Your task to perform on an android device: install app "Speedtest by Ookla" Image 0: 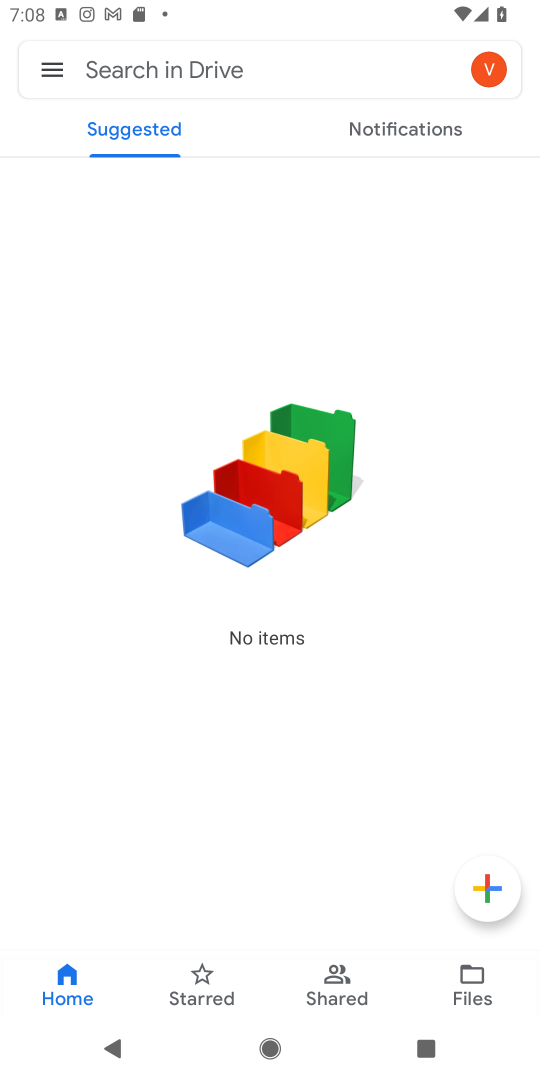
Step 0: press home button
Your task to perform on an android device: install app "Speedtest by Ookla" Image 1: 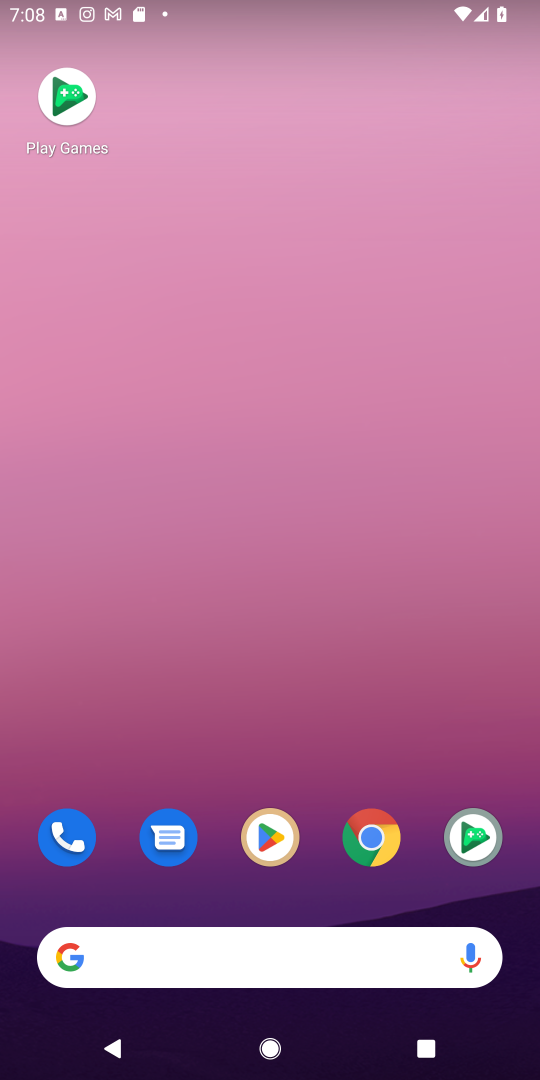
Step 1: click (267, 841)
Your task to perform on an android device: install app "Speedtest by Ookla" Image 2: 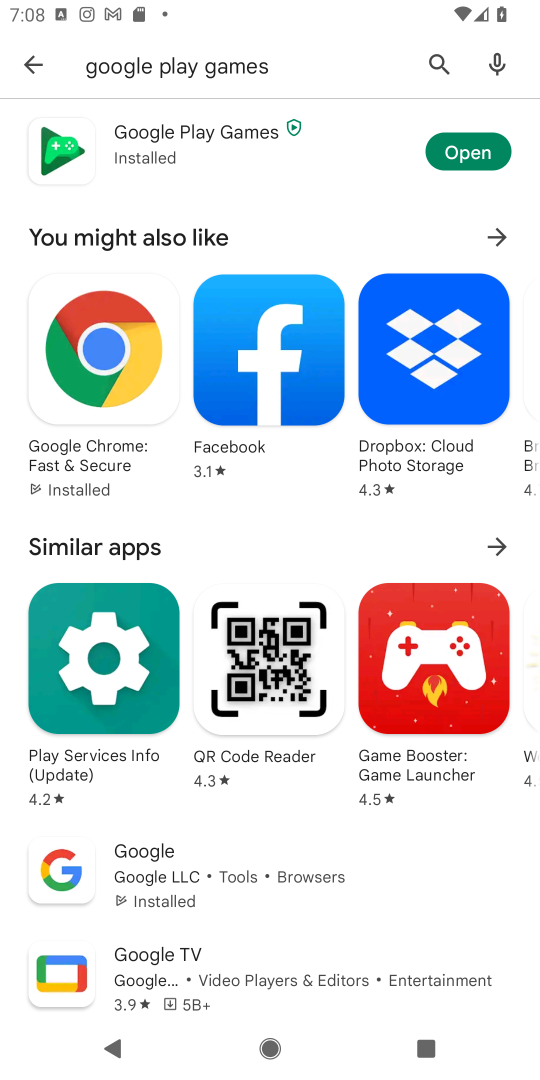
Step 2: click (441, 55)
Your task to perform on an android device: install app "Speedtest by Ookla" Image 3: 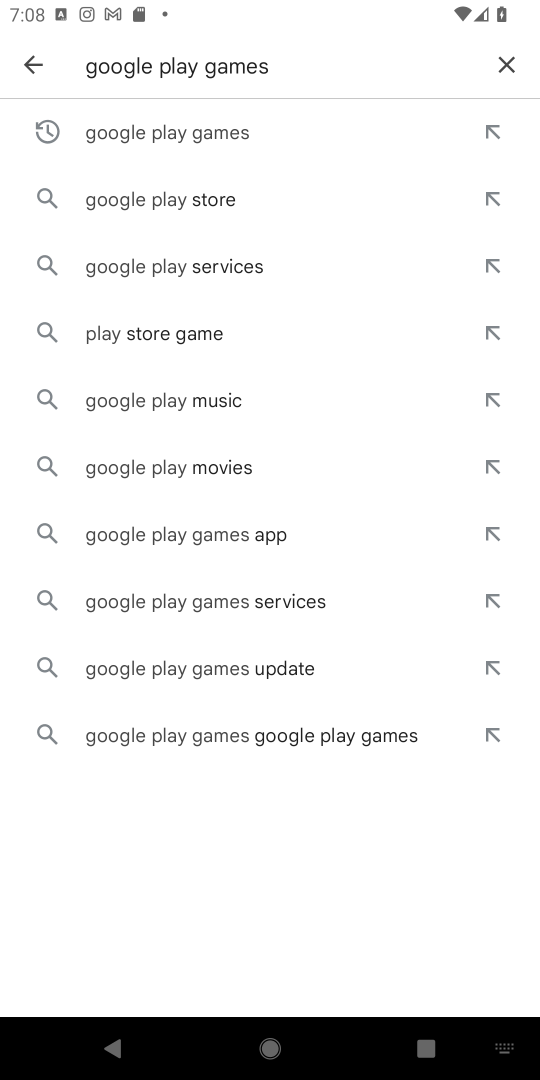
Step 3: click (510, 61)
Your task to perform on an android device: install app "Speedtest by Ookla" Image 4: 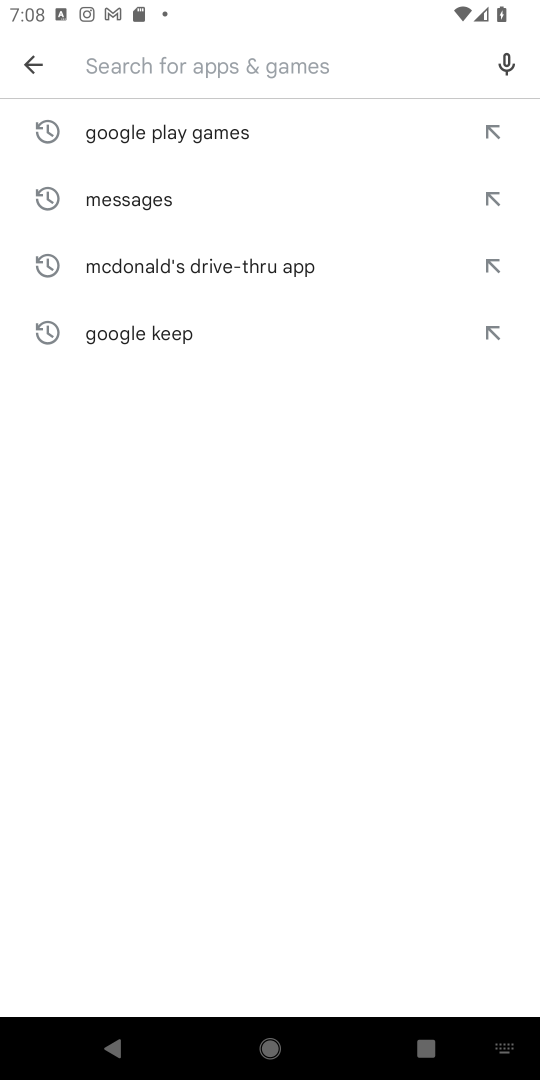
Step 4: type "Speedtest by Ookla"
Your task to perform on an android device: install app "Speedtest by Ookla" Image 5: 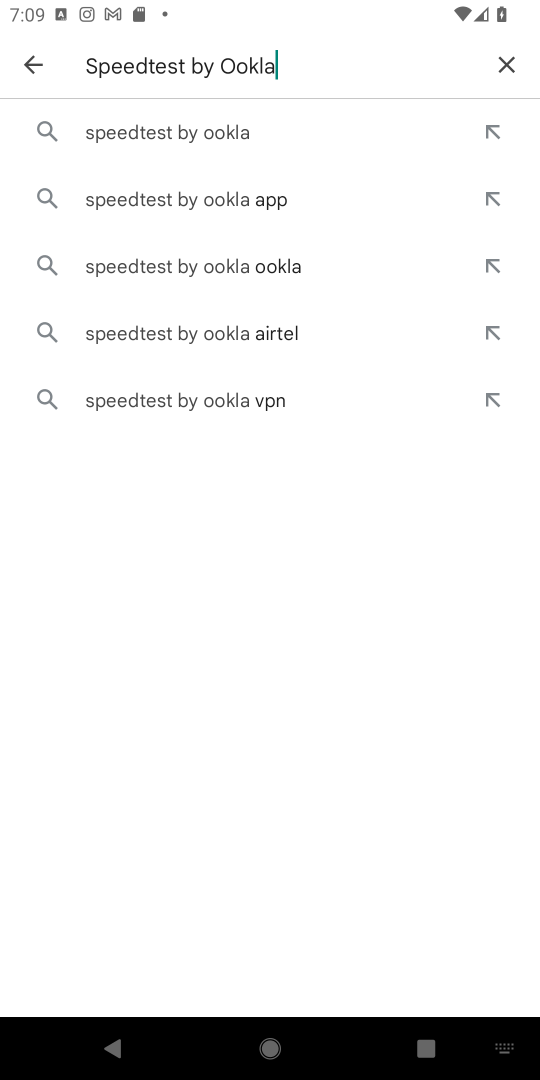
Step 5: click (202, 125)
Your task to perform on an android device: install app "Speedtest by Ookla" Image 6: 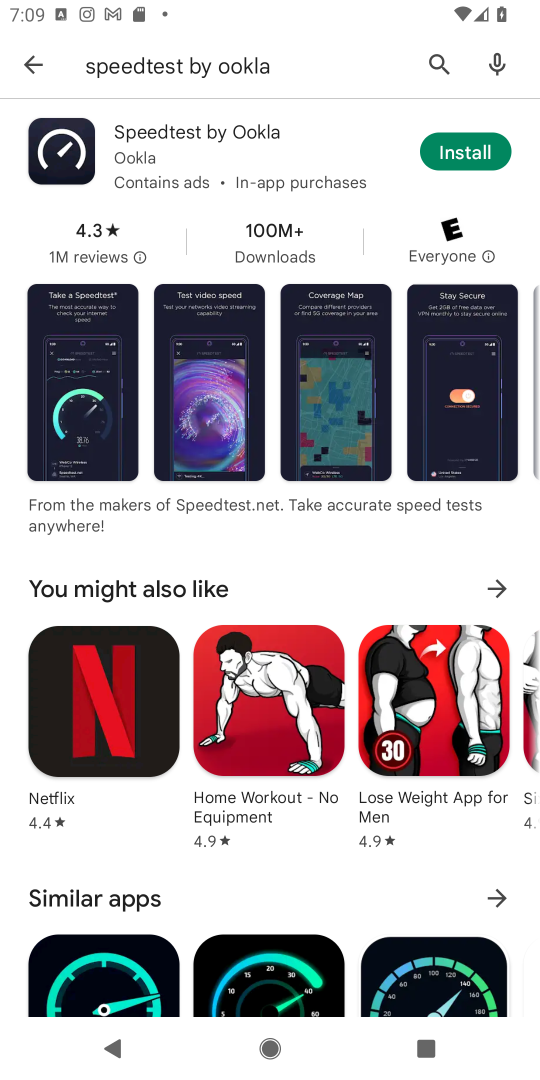
Step 6: click (477, 163)
Your task to perform on an android device: install app "Speedtest by Ookla" Image 7: 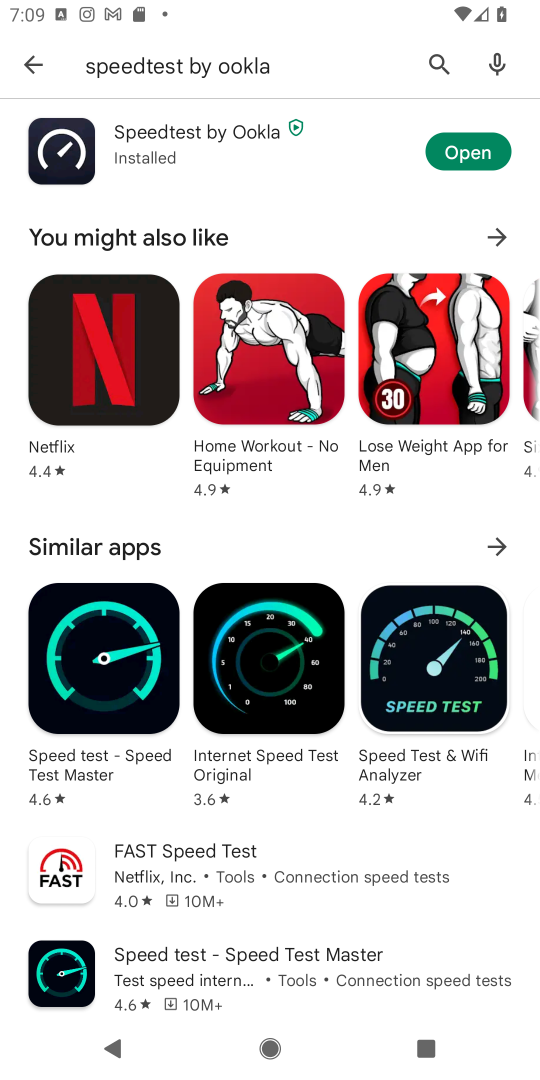
Step 7: task complete